Your task to perform on an android device: open chrome and create a bookmark for the current page Image 0: 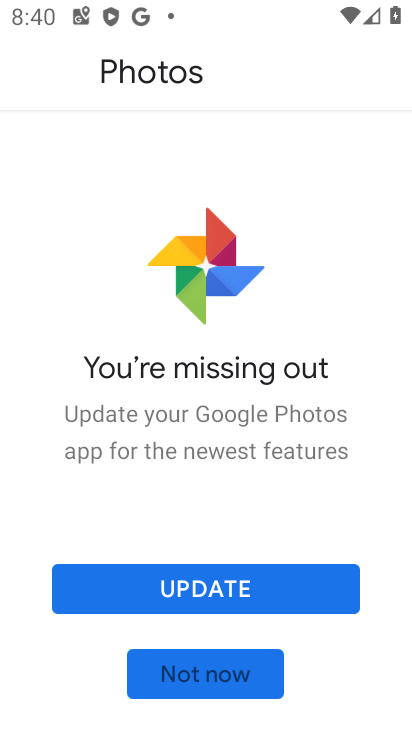
Step 0: press home button
Your task to perform on an android device: open chrome and create a bookmark for the current page Image 1: 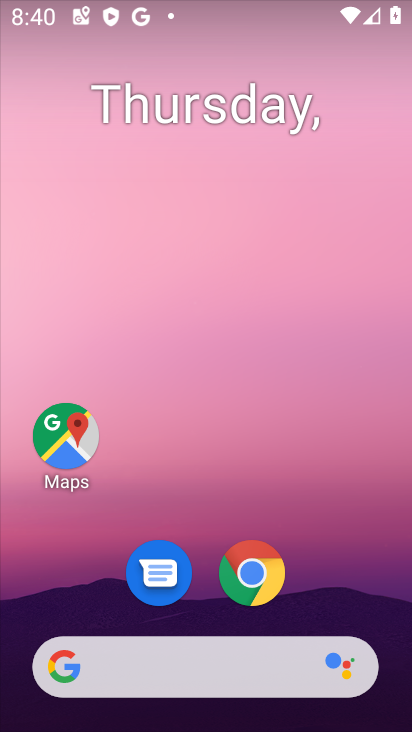
Step 1: drag from (353, 584) to (327, 234)
Your task to perform on an android device: open chrome and create a bookmark for the current page Image 2: 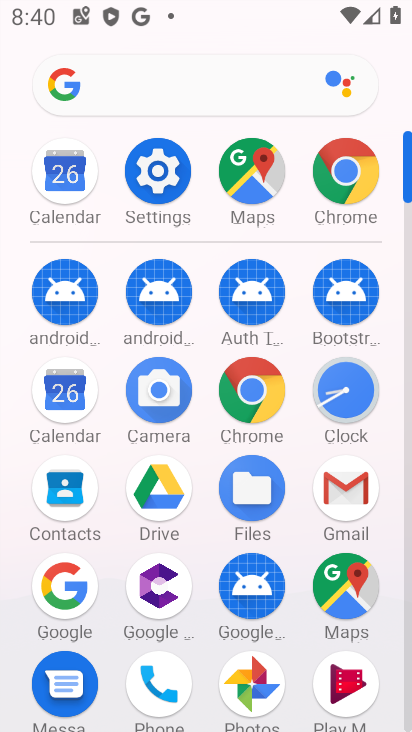
Step 2: click (258, 388)
Your task to perform on an android device: open chrome and create a bookmark for the current page Image 3: 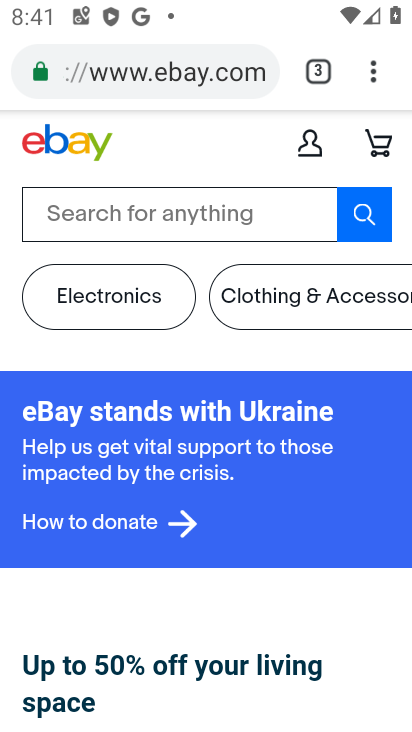
Step 3: task complete